Your task to perform on an android device: turn vacation reply on in the gmail app Image 0: 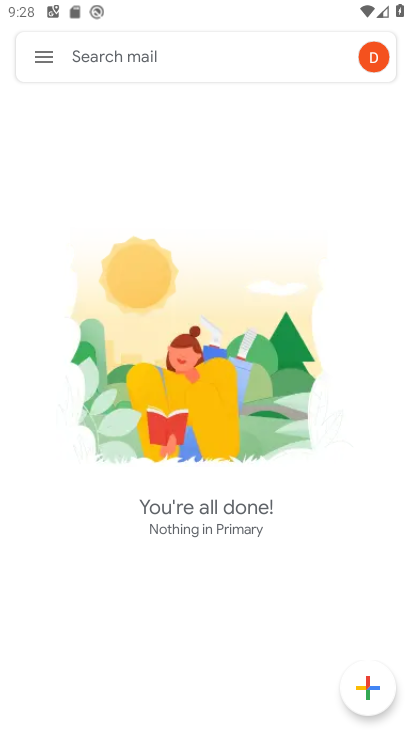
Step 0: click (51, 59)
Your task to perform on an android device: turn vacation reply on in the gmail app Image 1: 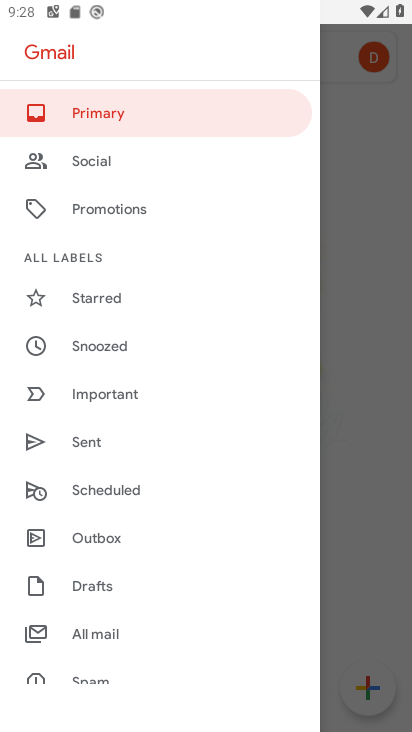
Step 1: drag from (121, 621) to (48, 387)
Your task to perform on an android device: turn vacation reply on in the gmail app Image 2: 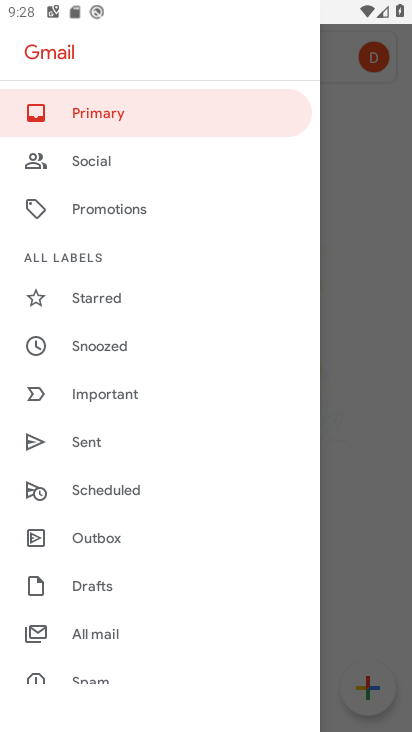
Step 2: drag from (166, 562) to (172, 302)
Your task to perform on an android device: turn vacation reply on in the gmail app Image 3: 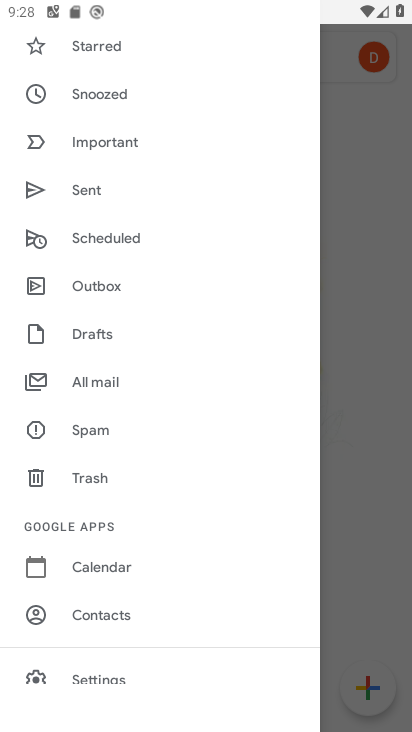
Step 3: drag from (145, 615) to (126, 328)
Your task to perform on an android device: turn vacation reply on in the gmail app Image 4: 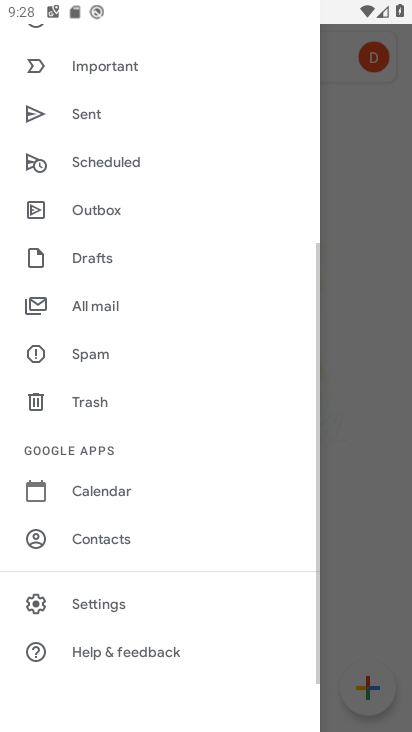
Step 4: click (106, 605)
Your task to perform on an android device: turn vacation reply on in the gmail app Image 5: 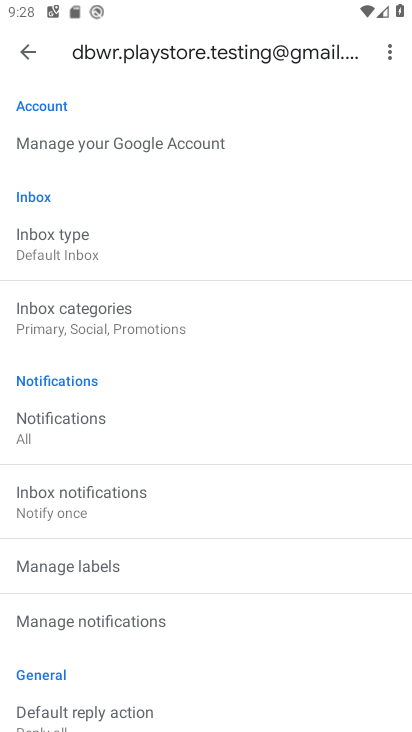
Step 5: drag from (217, 522) to (207, 142)
Your task to perform on an android device: turn vacation reply on in the gmail app Image 6: 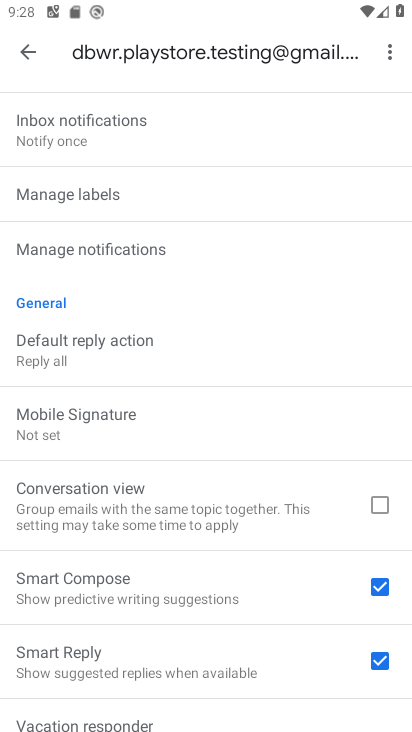
Step 6: drag from (178, 612) to (148, 330)
Your task to perform on an android device: turn vacation reply on in the gmail app Image 7: 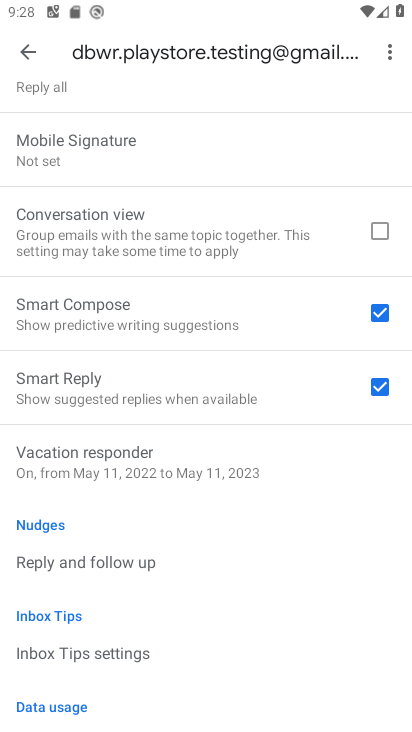
Step 7: click (118, 455)
Your task to perform on an android device: turn vacation reply on in the gmail app Image 8: 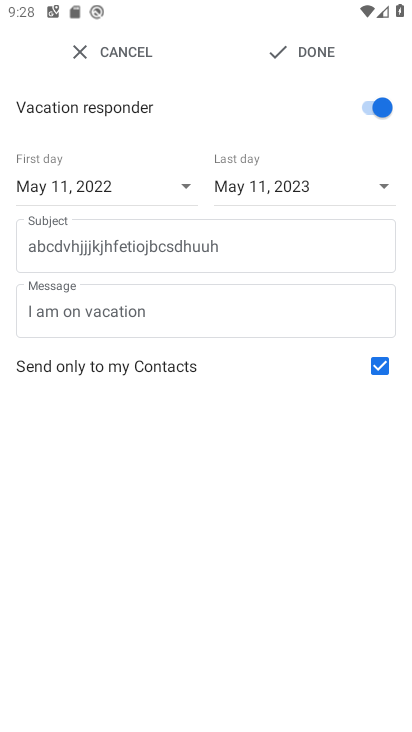
Step 8: task complete